Your task to perform on an android device: Open accessibility settings Image 0: 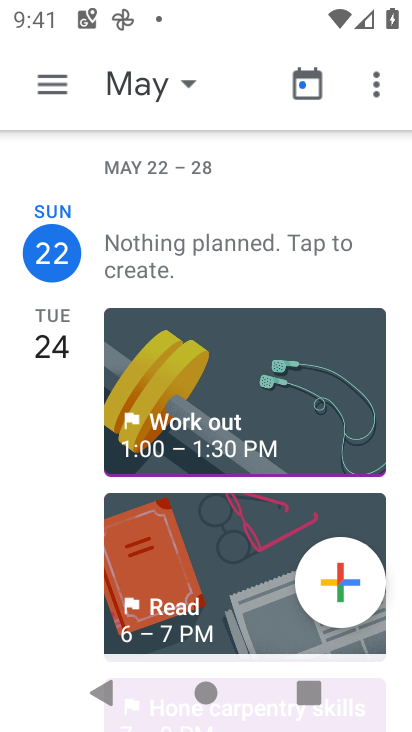
Step 0: press home button
Your task to perform on an android device: Open accessibility settings Image 1: 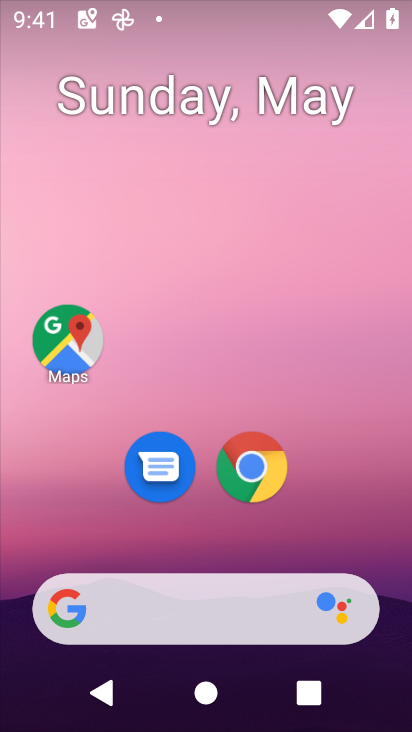
Step 1: drag from (367, 494) to (322, 149)
Your task to perform on an android device: Open accessibility settings Image 2: 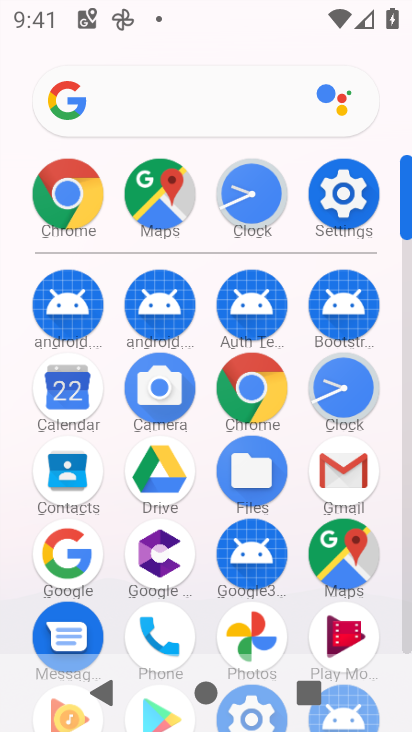
Step 2: click (340, 211)
Your task to perform on an android device: Open accessibility settings Image 3: 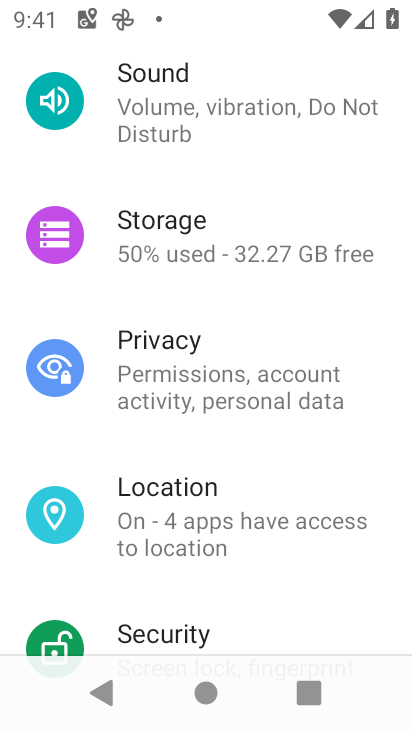
Step 3: drag from (239, 539) to (231, 226)
Your task to perform on an android device: Open accessibility settings Image 4: 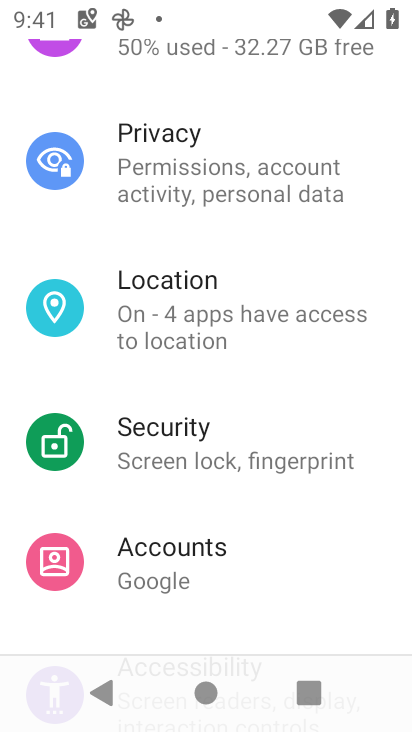
Step 4: drag from (238, 502) to (233, 258)
Your task to perform on an android device: Open accessibility settings Image 5: 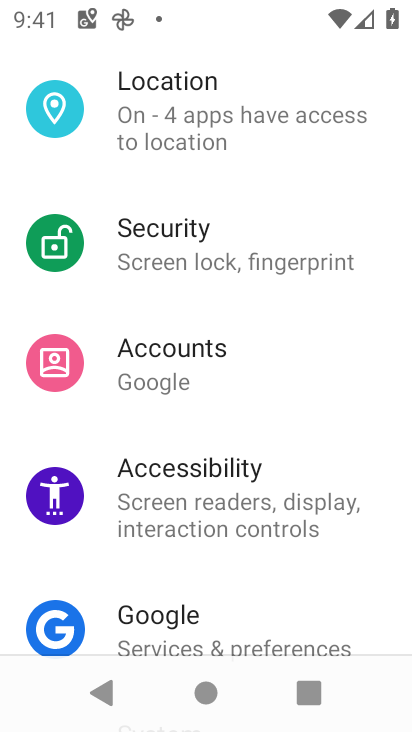
Step 5: click (197, 511)
Your task to perform on an android device: Open accessibility settings Image 6: 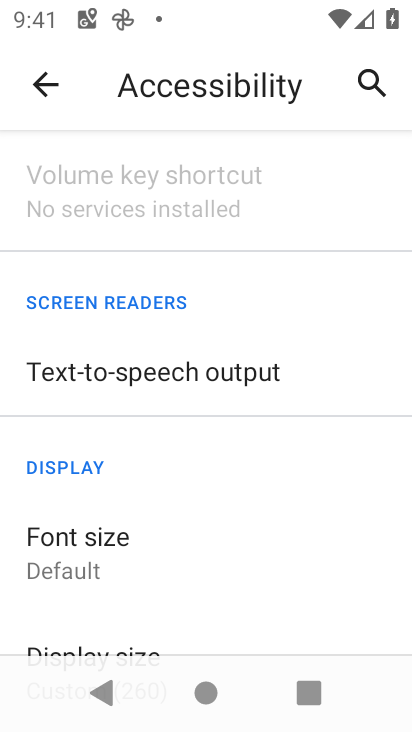
Step 6: task complete